Your task to perform on an android device: Search for sushi restaurants on Maps Image 0: 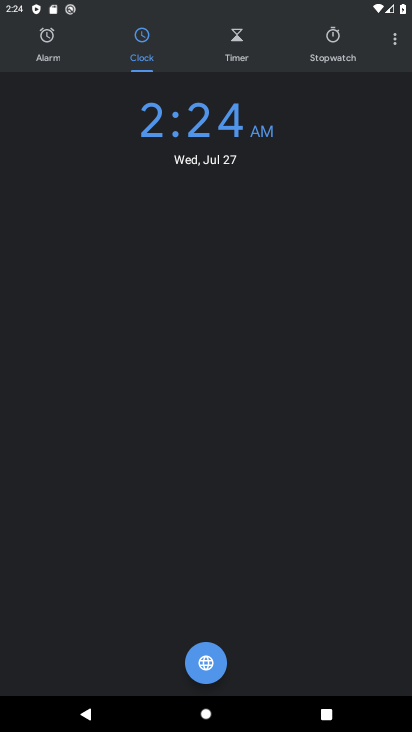
Step 0: press home button
Your task to perform on an android device: Search for sushi restaurants on Maps Image 1: 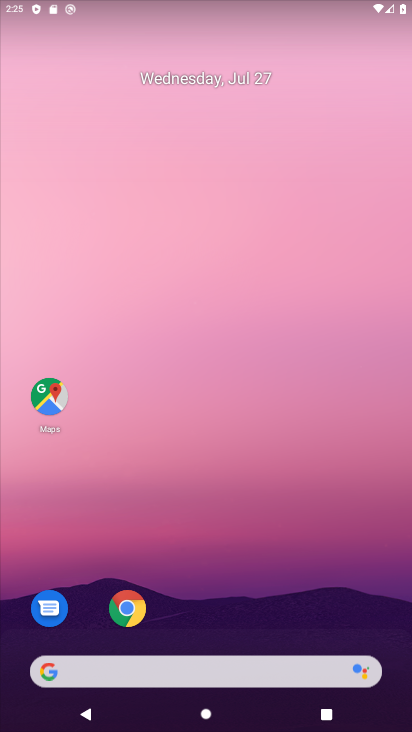
Step 1: click (46, 398)
Your task to perform on an android device: Search for sushi restaurants on Maps Image 2: 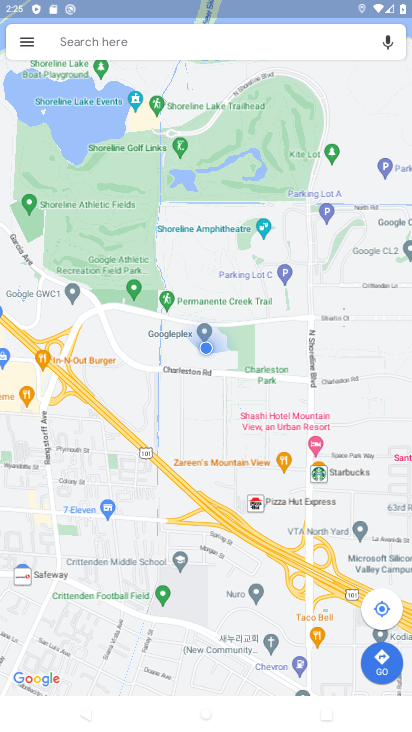
Step 2: click (149, 35)
Your task to perform on an android device: Search for sushi restaurants on Maps Image 3: 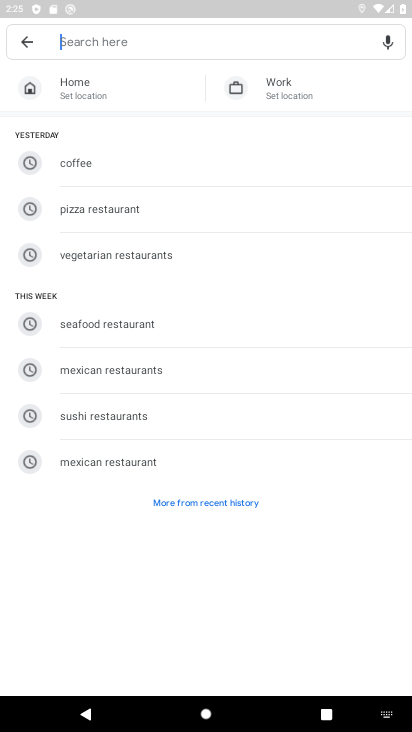
Step 3: click (147, 422)
Your task to perform on an android device: Search for sushi restaurants on Maps Image 4: 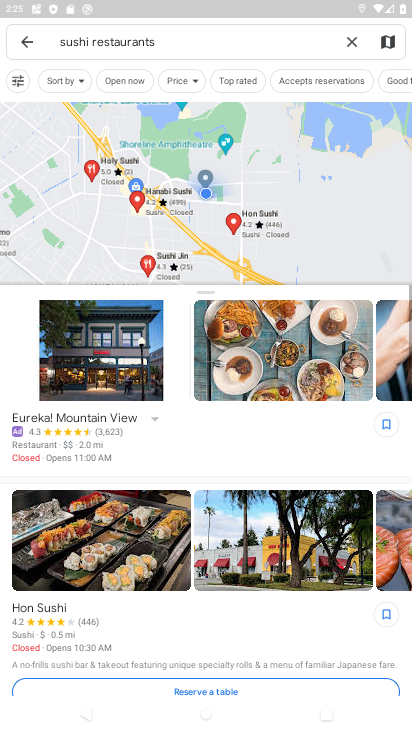
Step 4: task complete